Your task to perform on an android device: Open the Play Movies app and select the watchlist tab. Image 0: 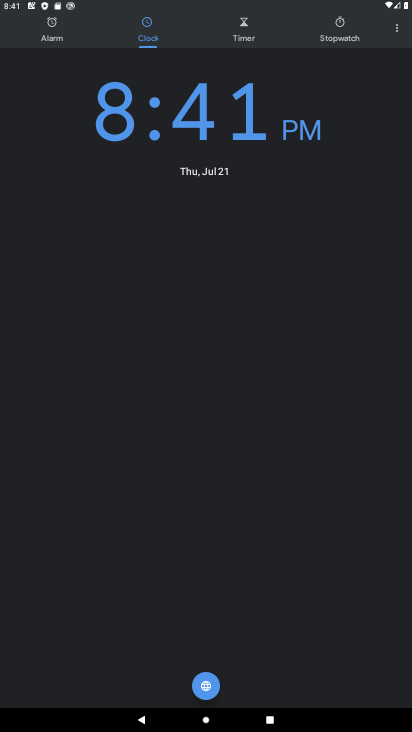
Step 0: press home button
Your task to perform on an android device: Open the Play Movies app and select the watchlist tab. Image 1: 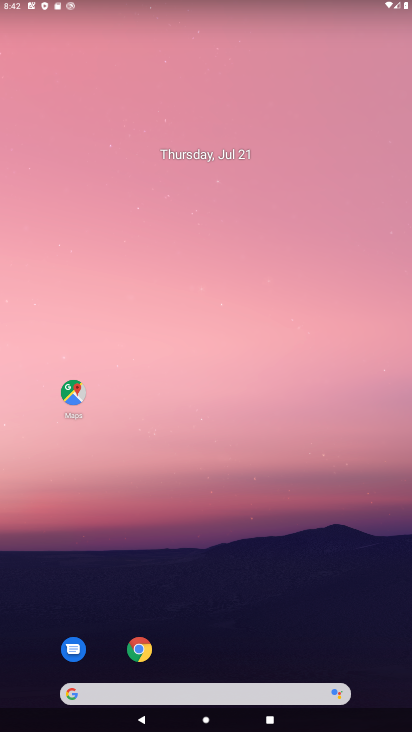
Step 1: drag from (171, 637) to (242, 4)
Your task to perform on an android device: Open the Play Movies app and select the watchlist tab. Image 2: 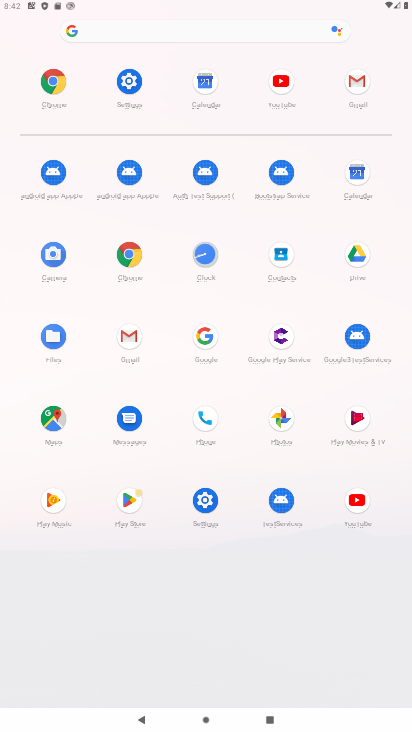
Step 2: click (363, 436)
Your task to perform on an android device: Open the Play Movies app and select the watchlist tab. Image 3: 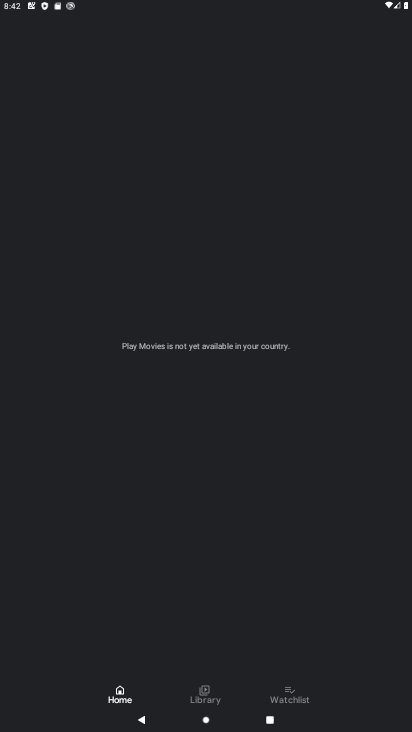
Step 3: click (298, 694)
Your task to perform on an android device: Open the Play Movies app and select the watchlist tab. Image 4: 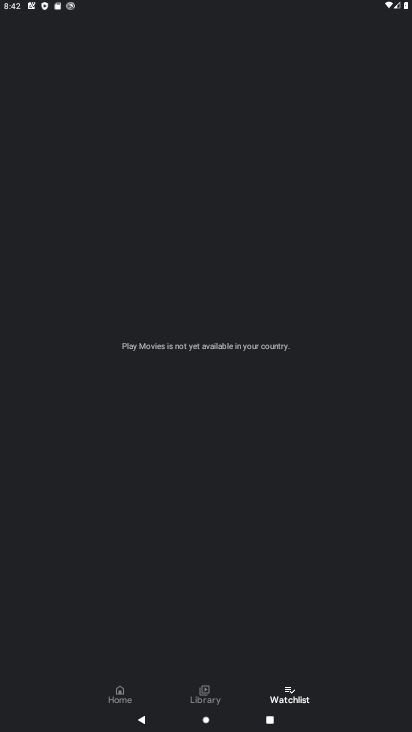
Step 4: task complete